Your task to perform on an android device: Open Maps and search for coffee Image 0: 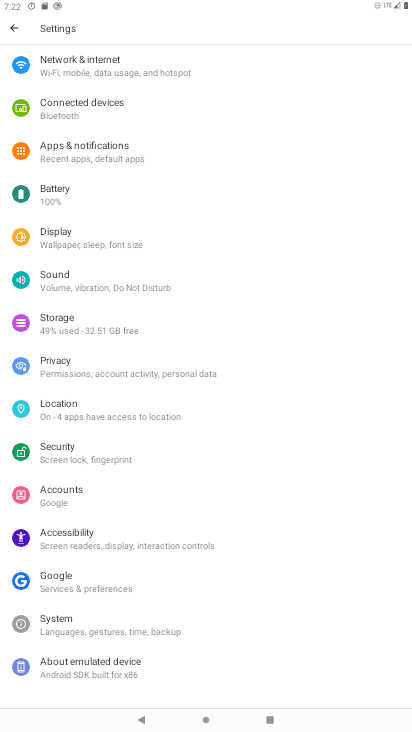
Step 0: press home button
Your task to perform on an android device: Open Maps and search for coffee Image 1: 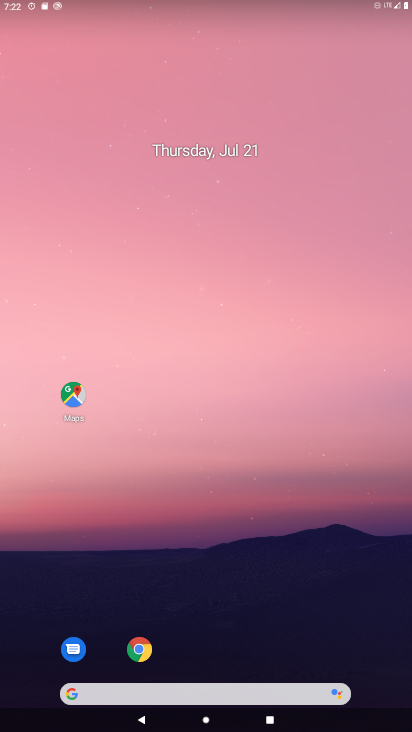
Step 1: drag from (388, 631) to (209, 44)
Your task to perform on an android device: Open Maps and search for coffee Image 2: 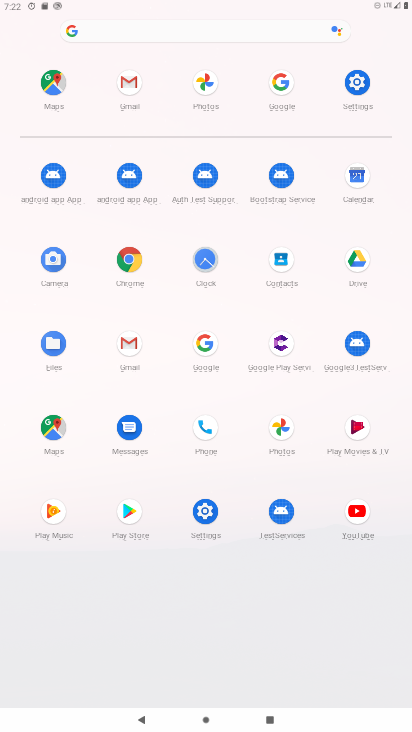
Step 2: click (48, 433)
Your task to perform on an android device: Open Maps and search for coffee Image 3: 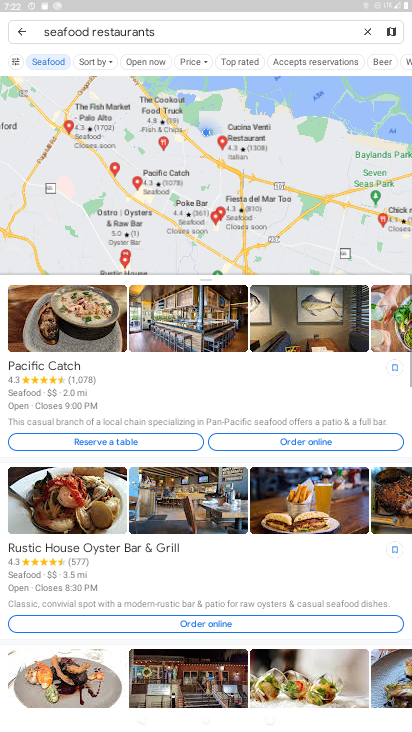
Step 3: click (369, 30)
Your task to perform on an android device: Open Maps and search for coffee Image 4: 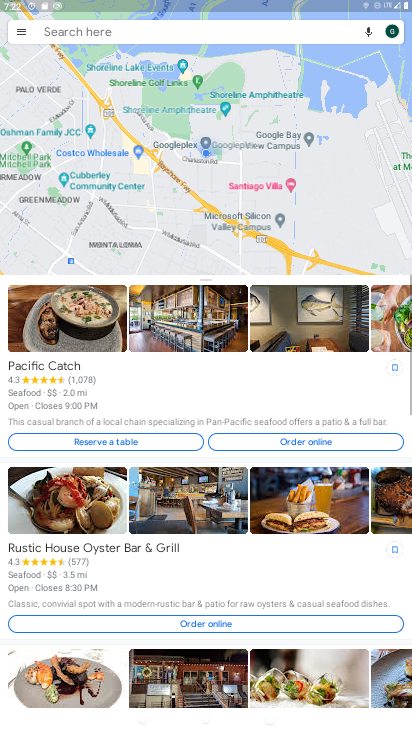
Step 4: click (168, 30)
Your task to perform on an android device: Open Maps and search for coffee Image 5: 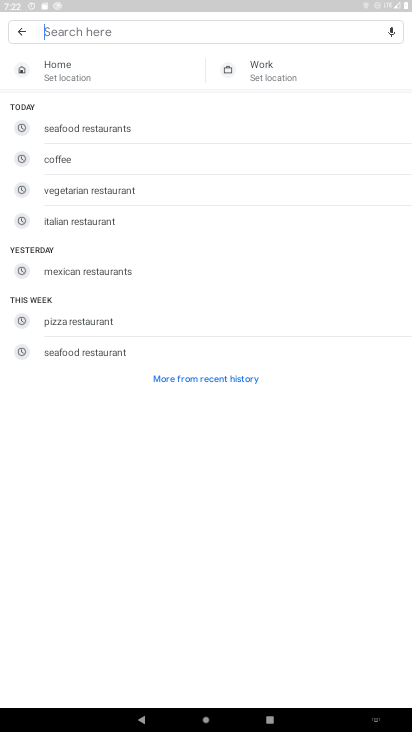
Step 5: click (58, 165)
Your task to perform on an android device: Open Maps and search for coffee Image 6: 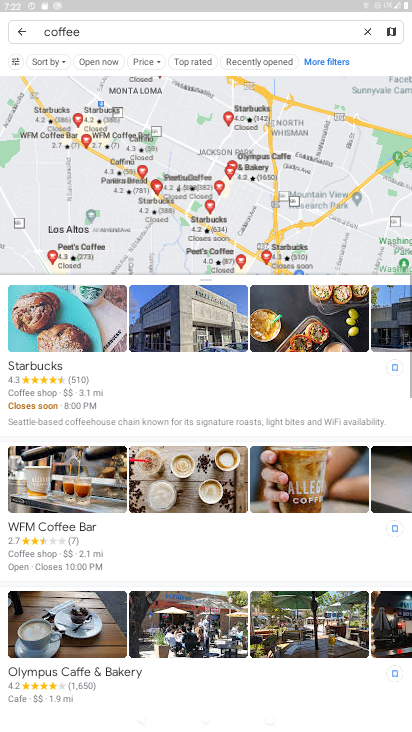
Step 6: task complete